Your task to perform on an android device: allow cookies in the chrome app Image 0: 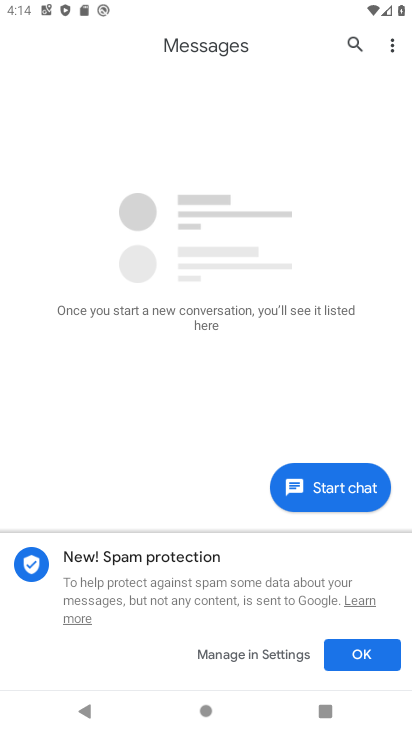
Step 0: press back button
Your task to perform on an android device: allow cookies in the chrome app Image 1: 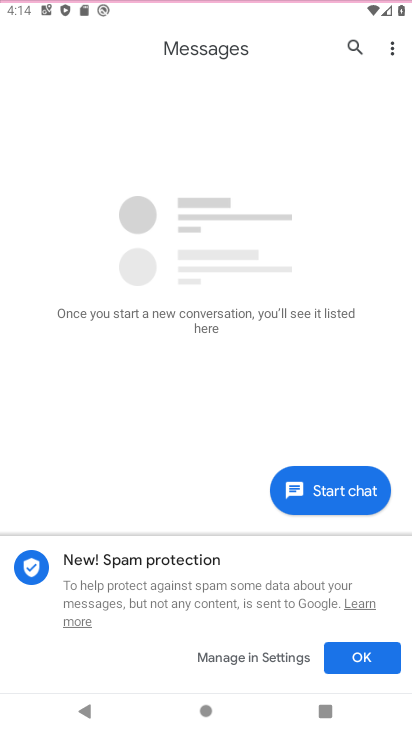
Step 1: press back button
Your task to perform on an android device: allow cookies in the chrome app Image 2: 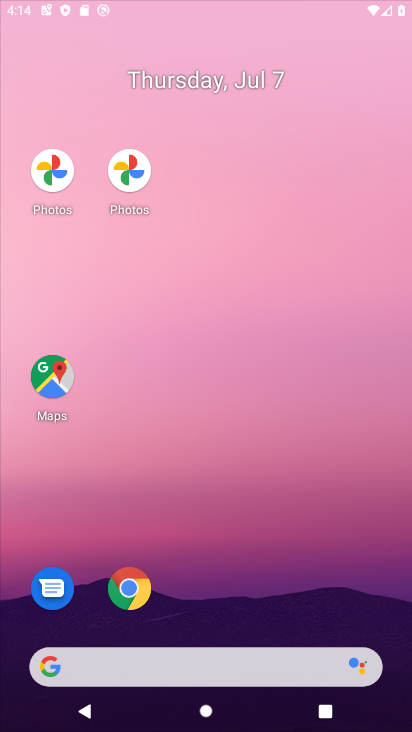
Step 2: press back button
Your task to perform on an android device: allow cookies in the chrome app Image 3: 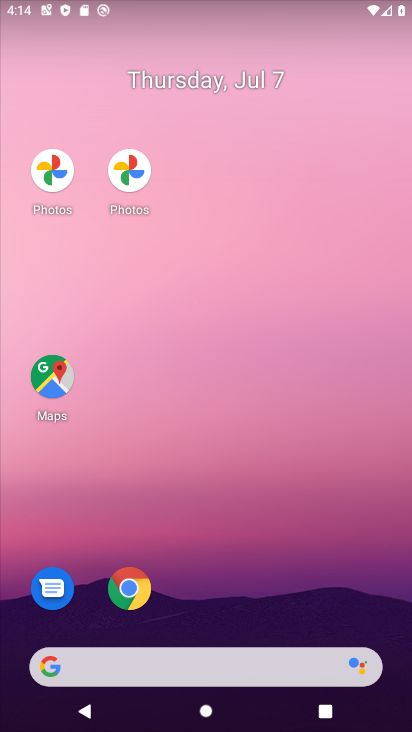
Step 3: press back button
Your task to perform on an android device: allow cookies in the chrome app Image 4: 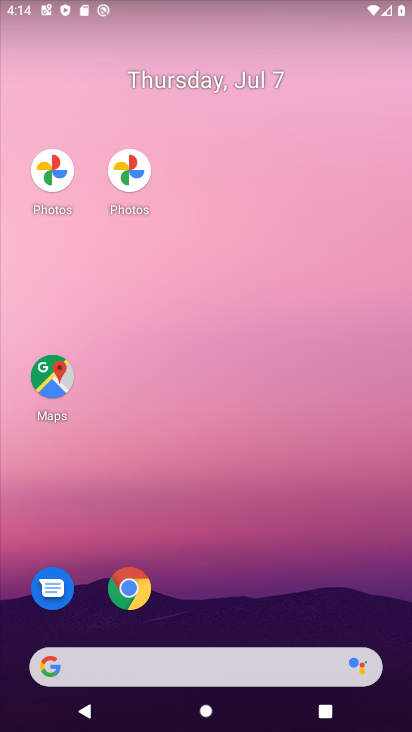
Step 4: drag from (245, 703) to (95, 132)
Your task to perform on an android device: allow cookies in the chrome app Image 5: 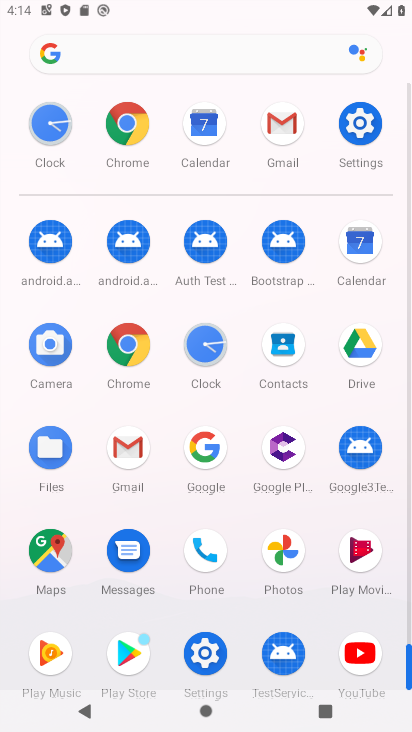
Step 5: click (117, 345)
Your task to perform on an android device: allow cookies in the chrome app Image 6: 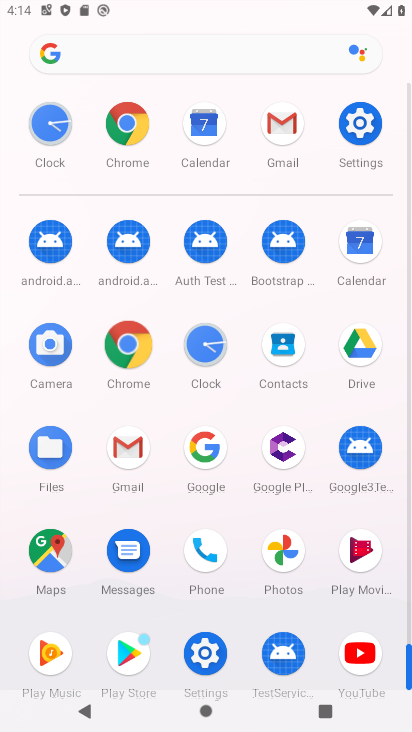
Step 6: click (125, 343)
Your task to perform on an android device: allow cookies in the chrome app Image 7: 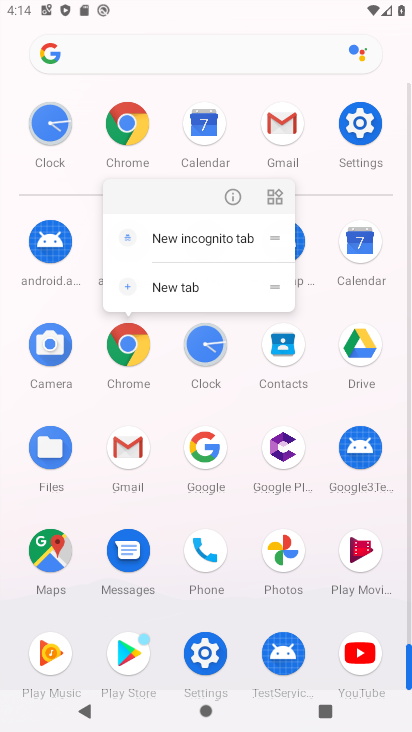
Step 7: click (125, 342)
Your task to perform on an android device: allow cookies in the chrome app Image 8: 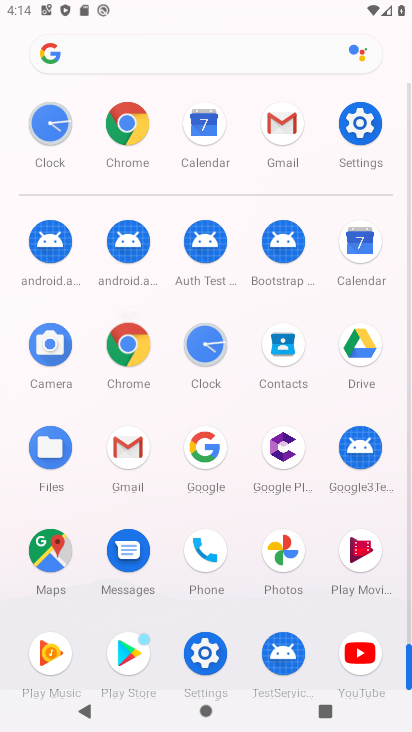
Step 8: click (125, 341)
Your task to perform on an android device: allow cookies in the chrome app Image 9: 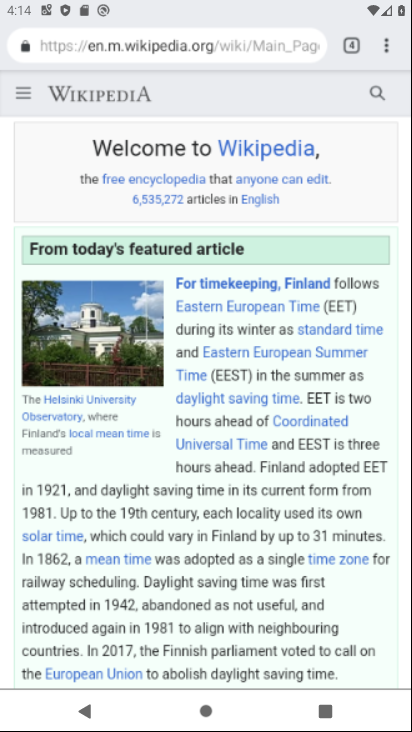
Step 9: click (125, 341)
Your task to perform on an android device: allow cookies in the chrome app Image 10: 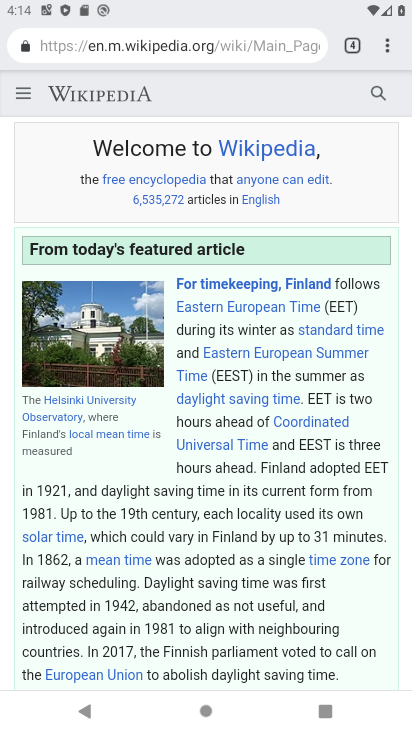
Step 10: press back button
Your task to perform on an android device: allow cookies in the chrome app Image 11: 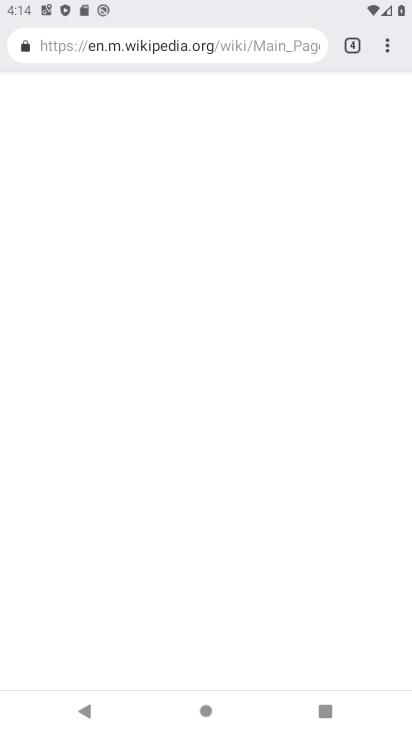
Step 11: press back button
Your task to perform on an android device: allow cookies in the chrome app Image 12: 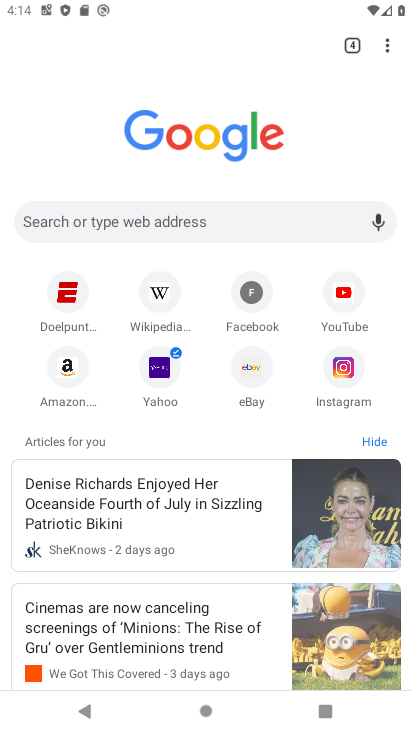
Step 12: press back button
Your task to perform on an android device: allow cookies in the chrome app Image 13: 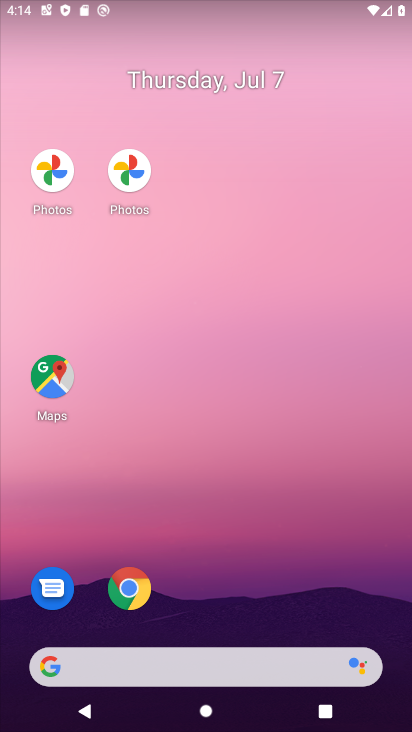
Step 13: drag from (253, 645) to (181, 183)
Your task to perform on an android device: allow cookies in the chrome app Image 14: 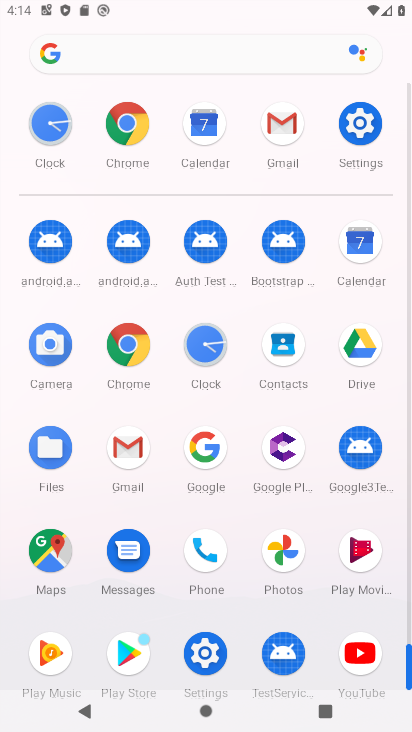
Step 14: click (128, 337)
Your task to perform on an android device: allow cookies in the chrome app Image 15: 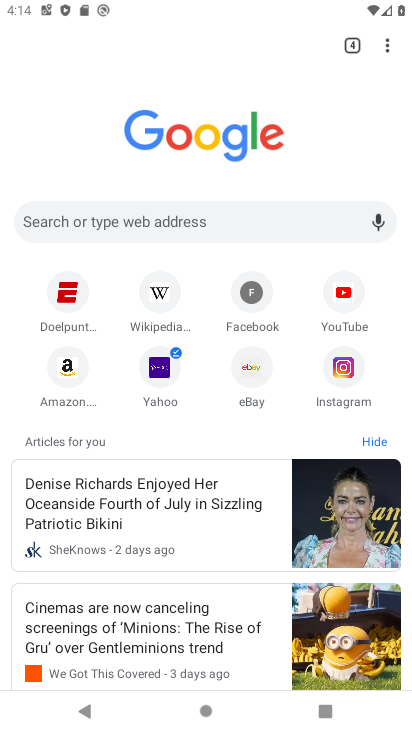
Step 15: drag from (381, 43) to (224, 421)
Your task to perform on an android device: allow cookies in the chrome app Image 16: 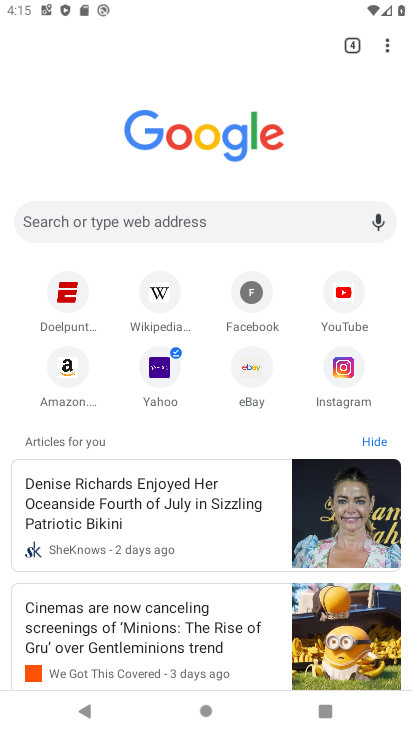
Step 16: click (230, 417)
Your task to perform on an android device: allow cookies in the chrome app Image 17: 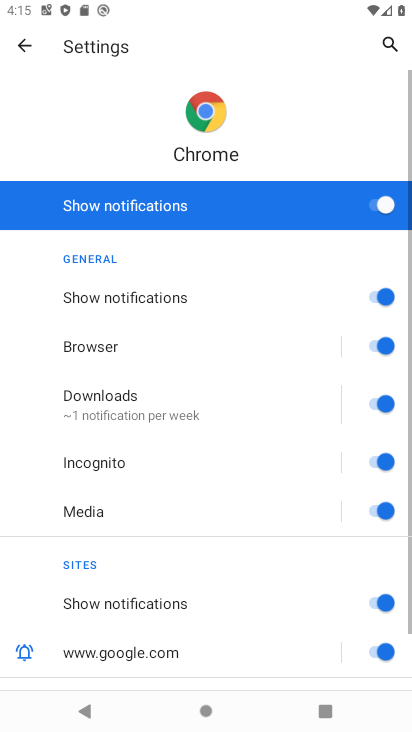
Step 17: click (18, 39)
Your task to perform on an android device: allow cookies in the chrome app Image 18: 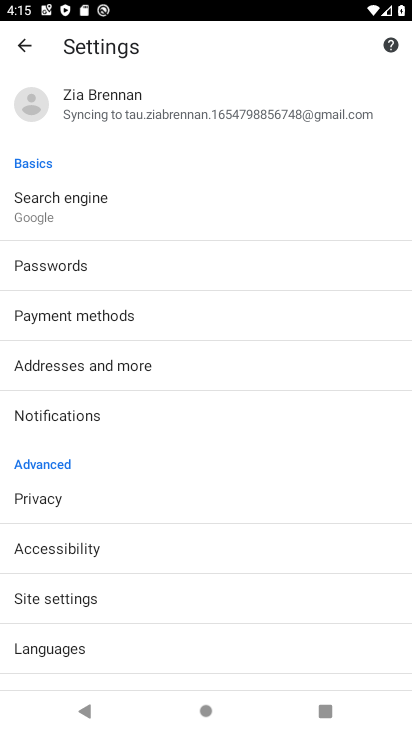
Step 18: click (53, 592)
Your task to perform on an android device: allow cookies in the chrome app Image 19: 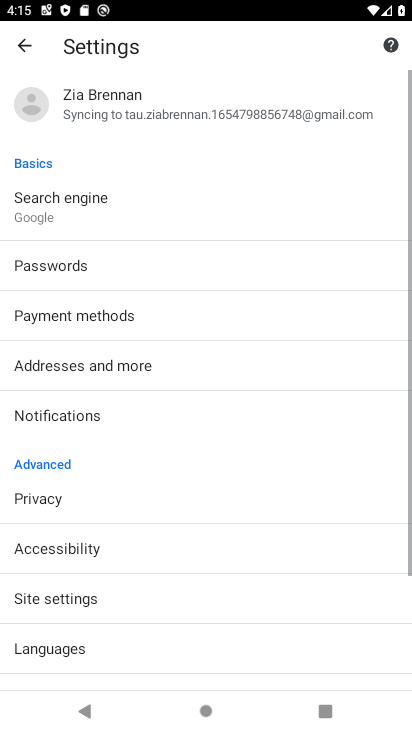
Step 19: click (53, 592)
Your task to perform on an android device: allow cookies in the chrome app Image 20: 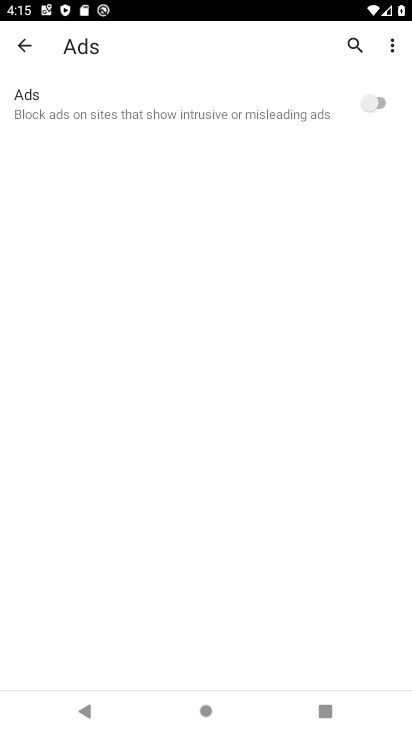
Step 20: click (26, 47)
Your task to perform on an android device: allow cookies in the chrome app Image 21: 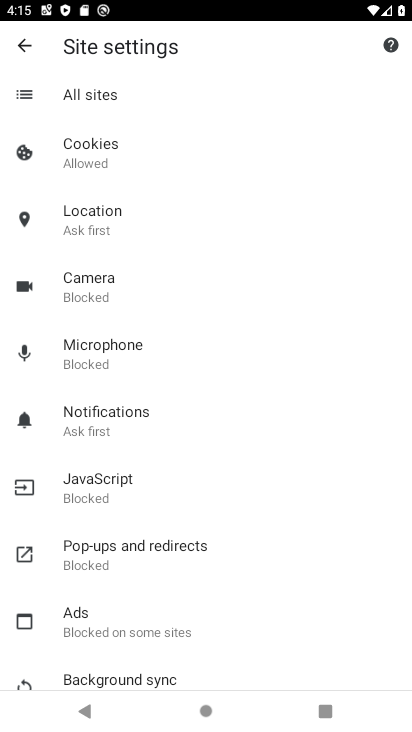
Step 21: click (80, 152)
Your task to perform on an android device: allow cookies in the chrome app Image 22: 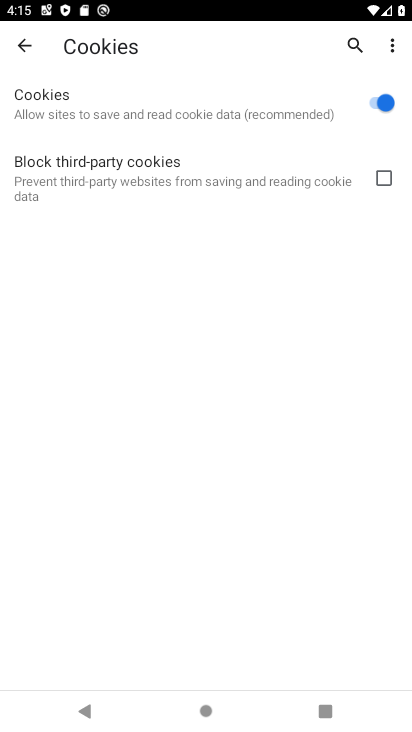
Step 22: task complete